Your task to perform on an android device: Is it going to rain today? Image 0: 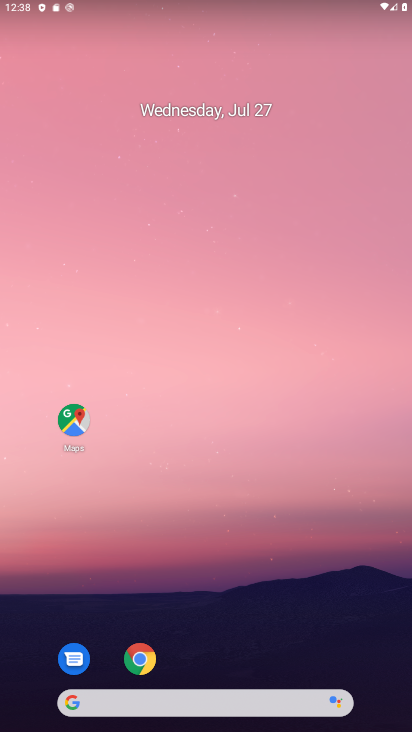
Step 0: drag from (229, 653) to (186, 28)
Your task to perform on an android device: Is it going to rain today? Image 1: 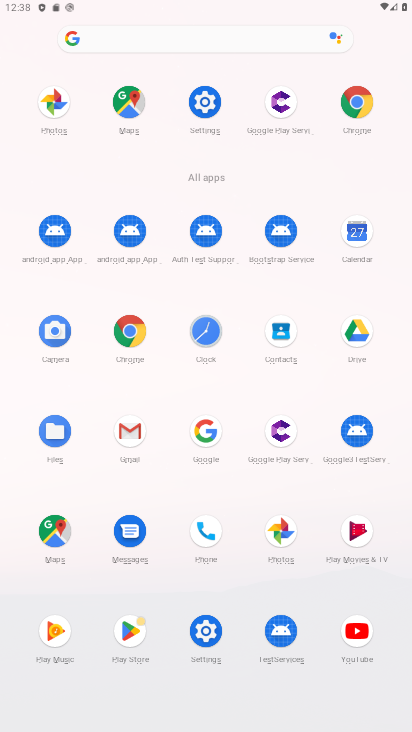
Step 1: click (361, 107)
Your task to perform on an android device: Is it going to rain today? Image 2: 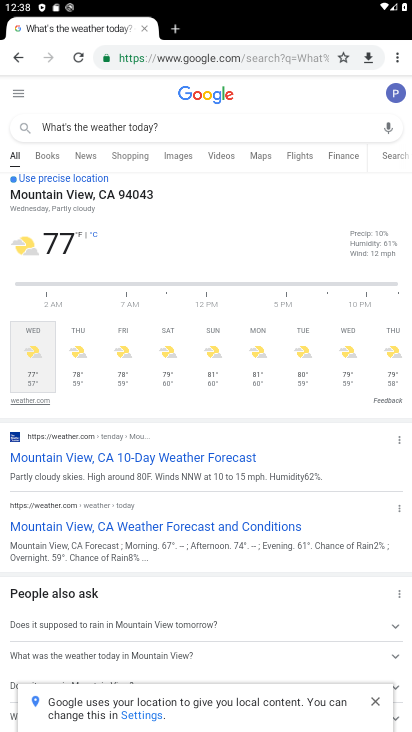
Step 2: click (271, 54)
Your task to perform on an android device: Is it going to rain today? Image 3: 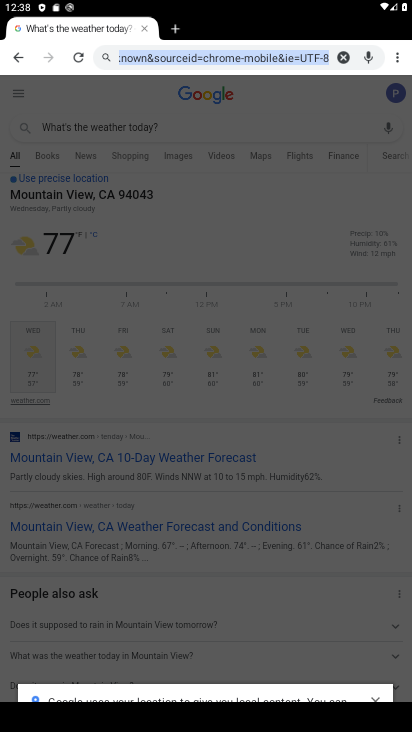
Step 3: type "Is it going to rain today?"
Your task to perform on an android device: Is it going to rain today? Image 4: 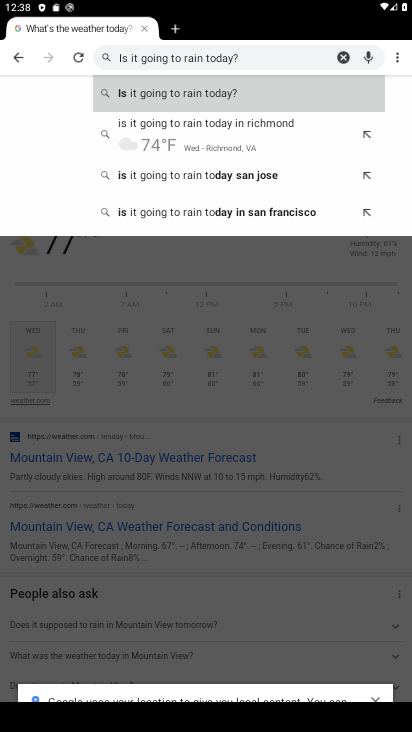
Step 4: click (228, 92)
Your task to perform on an android device: Is it going to rain today? Image 5: 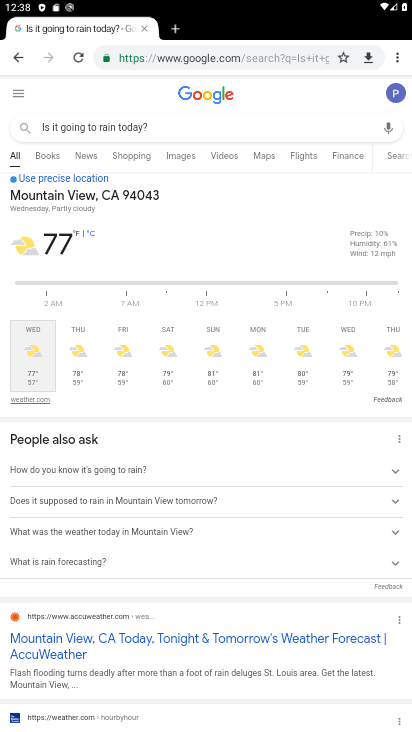
Step 5: task complete